Your task to perform on an android device: delete browsing data in the chrome app Image 0: 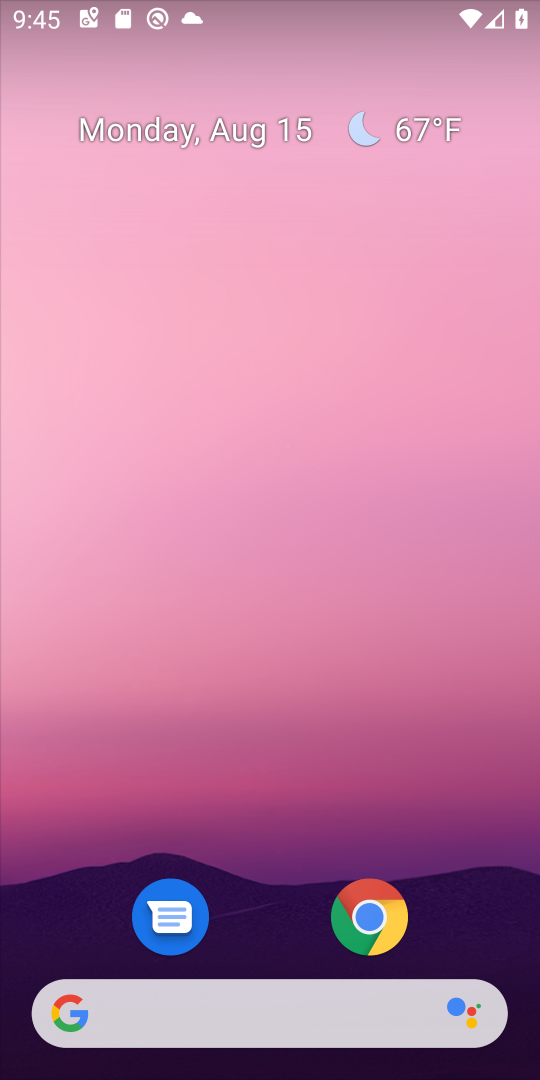
Step 0: click (369, 913)
Your task to perform on an android device: delete browsing data in the chrome app Image 1: 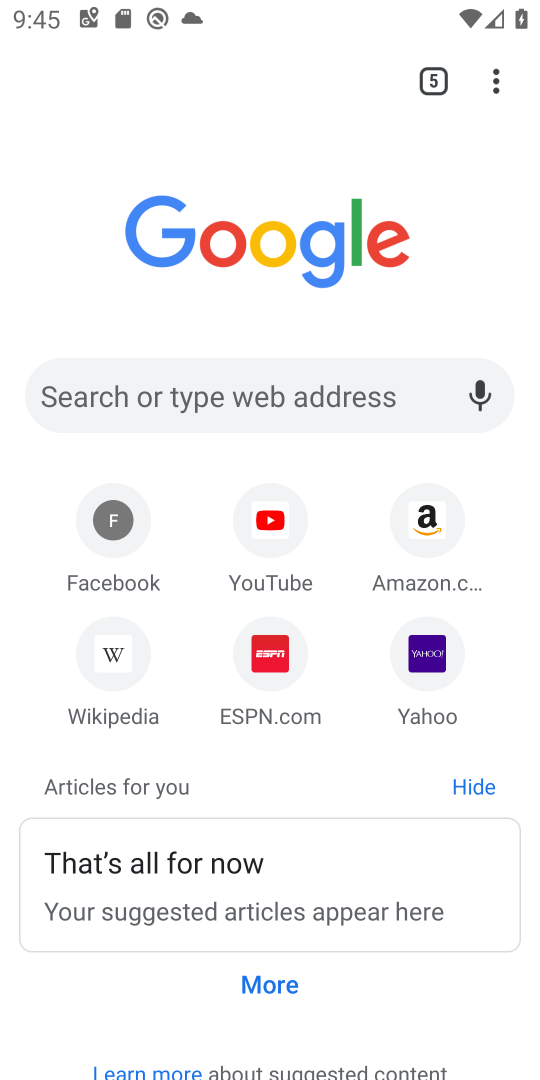
Step 1: click (494, 81)
Your task to perform on an android device: delete browsing data in the chrome app Image 2: 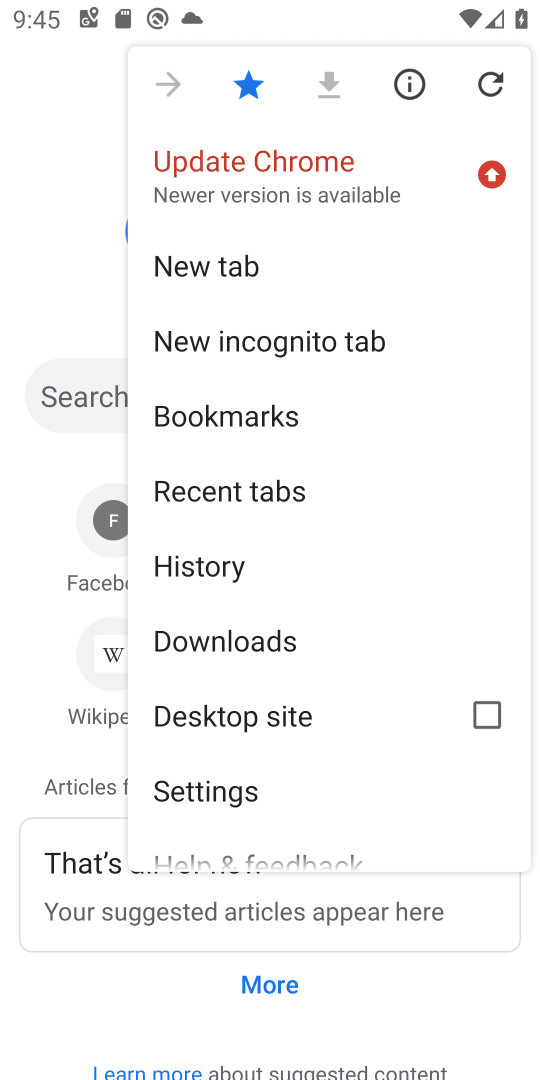
Step 2: click (236, 558)
Your task to perform on an android device: delete browsing data in the chrome app Image 3: 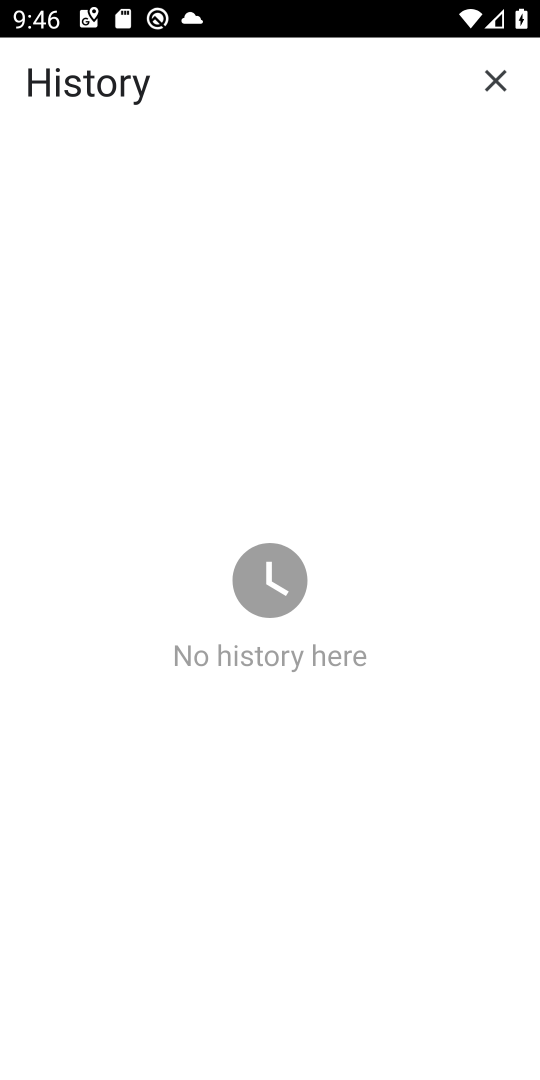
Step 3: task complete